Your task to perform on an android device: open a bookmark in the chrome app Image 0: 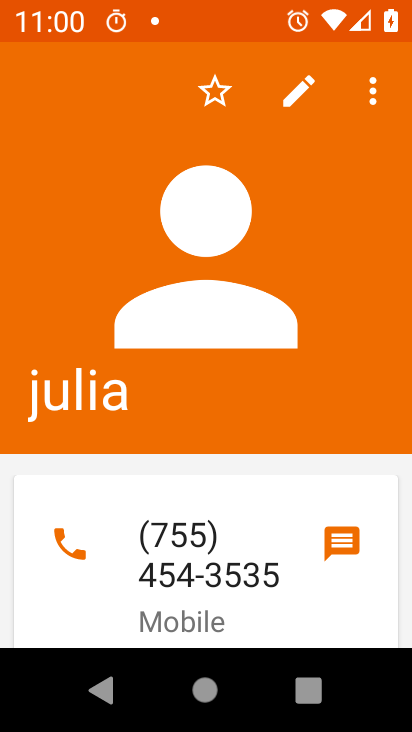
Step 0: press home button
Your task to perform on an android device: open a bookmark in the chrome app Image 1: 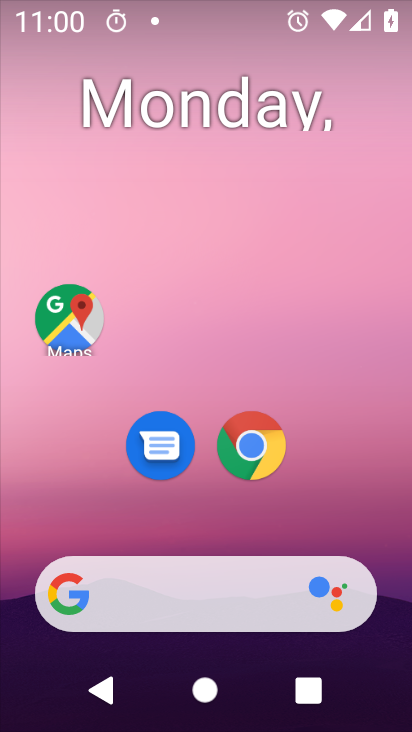
Step 1: click (235, 451)
Your task to perform on an android device: open a bookmark in the chrome app Image 2: 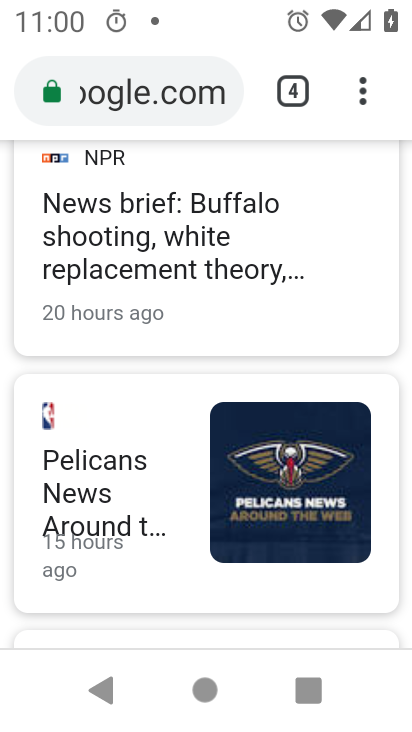
Step 2: click (368, 87)
Your task to perform on an android device: open a bookmark in the chrome app Image 3: 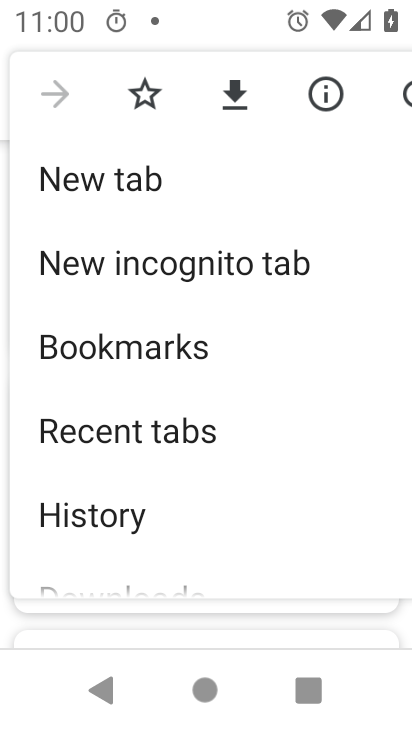
Step 3: click (125, 350)
Your task to perform on an android device: open a bookmark in the chrome app Image 4: 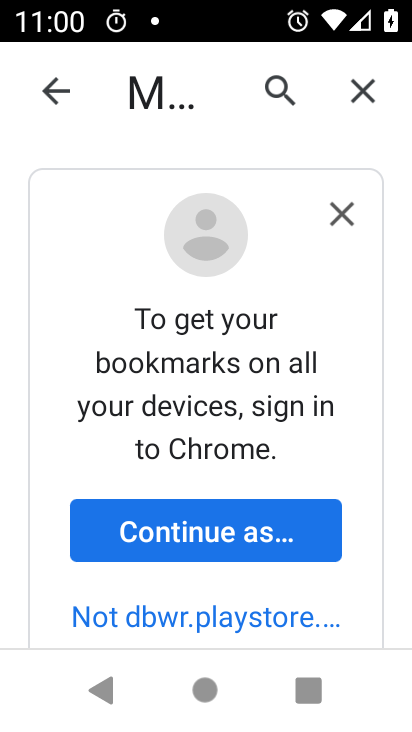
Step 4: drag from (156, 624) to (177, 268)
Your task to perform on an android device: open a bookmark in the chrome app Image 5: 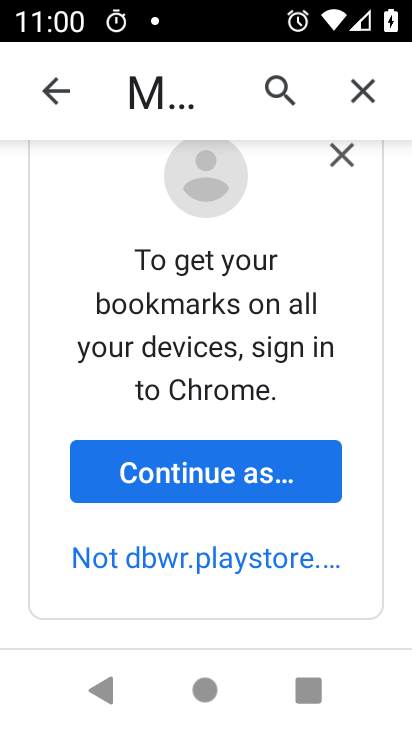
Step 5: drag from (162, 598) to (187, 271)
Your task to perform on an android device: open a bookmark in the chrome app Image 6: 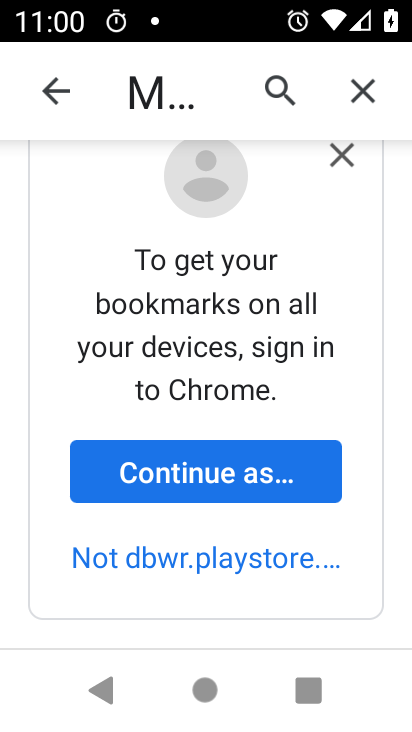
Step 6: drag from (355, 614) to (337, 314)
Your task to perform on an android device: open a bookmark in the chrome app Image 7: 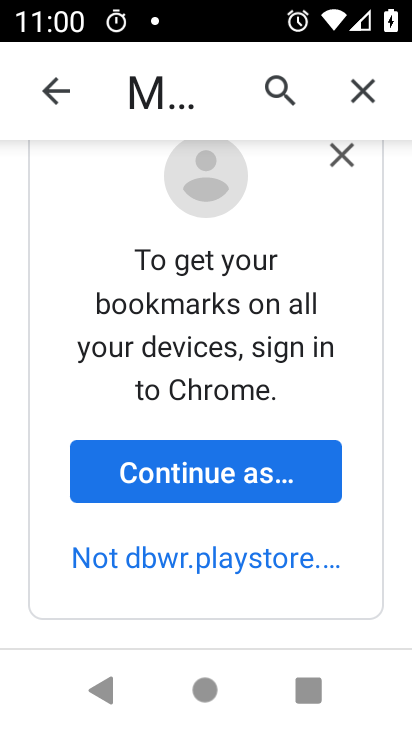
Step 7: drag from (257, 266) to (217, 588)
Your task to perform on an android device: open a bookmark in the chrome app Image 8: 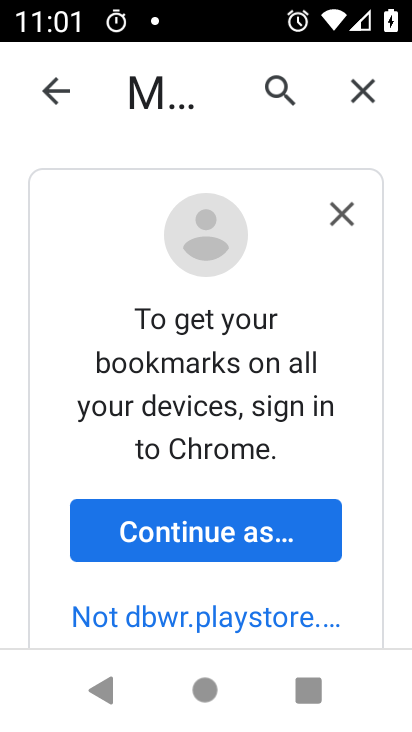
Step 8: click (58, 95)
Your task to perform on an android device: open a bookmark in the chrome app Image 9: 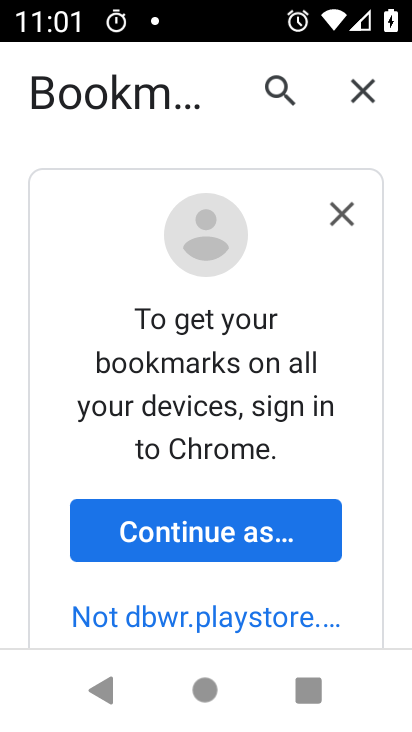
Step 9: task complete